Your task to perform on an android device: Do I have any events today? Image 0: 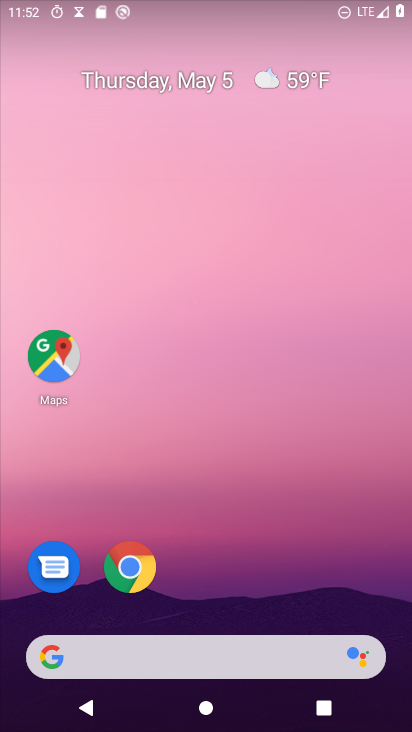
Step 0: drag from (334, 572) to (296, 36)
Your task to perform on an android device: Do I have any events today? Image 1: 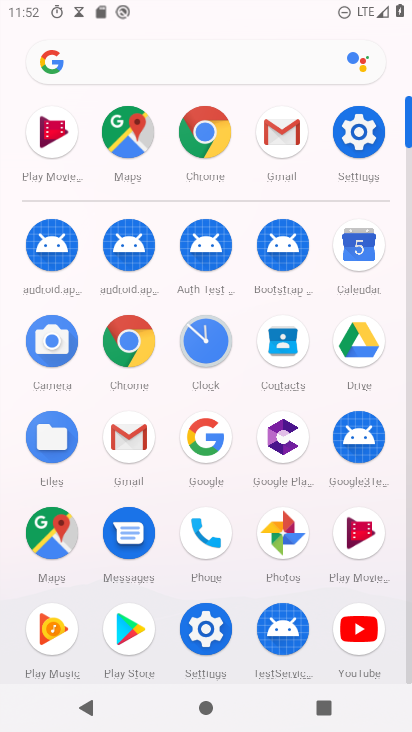
Step 1: click (368, 243)
Your task to perform on an android device: Do I have any events today? Image 2: 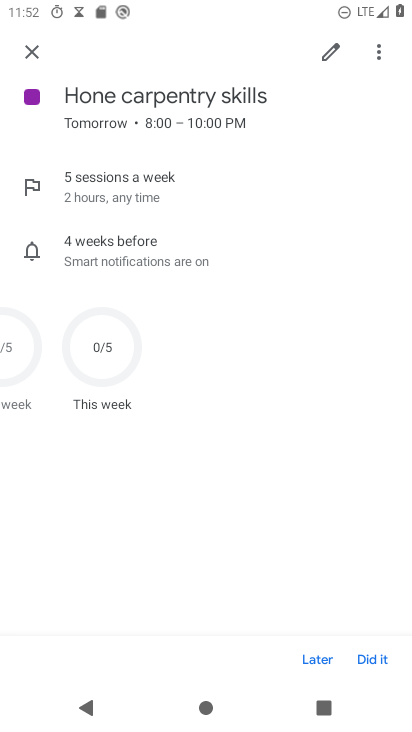
Step 2: click (24, 60)
Your task to perform on an android device: Do I have any events today? Image 3: 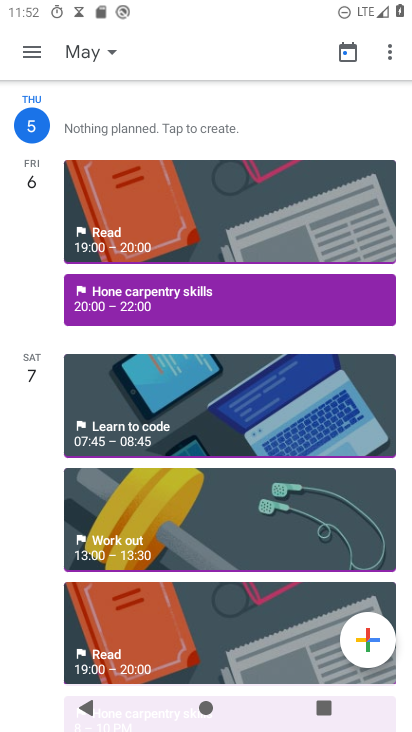
Step 3: click (130, 125)
Your task to perform on an android device: Do I have any events today? Image 4: 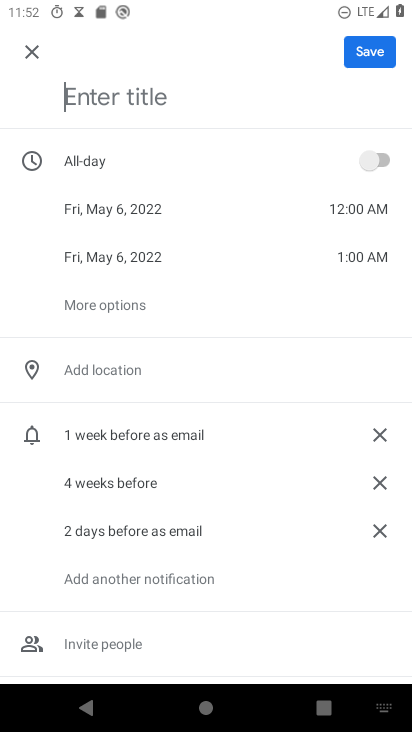
Step 4: drag from (246, 573) to (235, 274)
Your task to perform on an android device: Do I have any events today? Image 5: 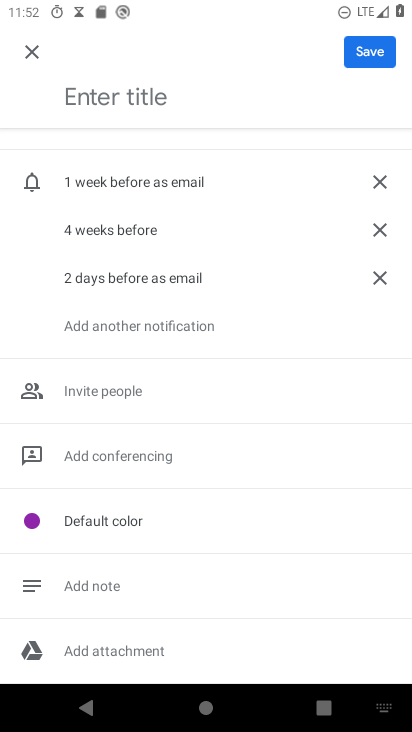
Step 5: click (24, 59)
Your task to perform on an android device: Do I have any events today? Image 6: 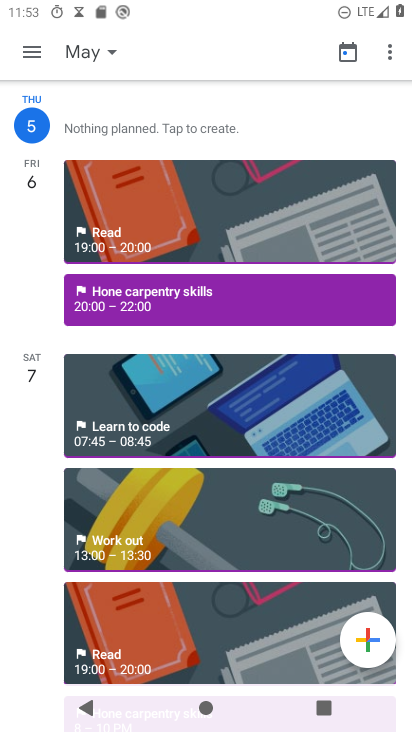
Step 6: task complete